Your task to perform on an android device: clear history in the chrome app Image 0: 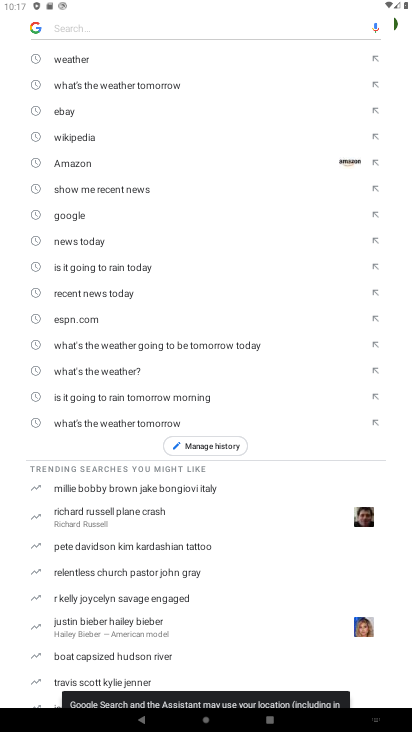
Step 0: press home button
Your task to perform on an android device: clear history in the chrome app Image 1: 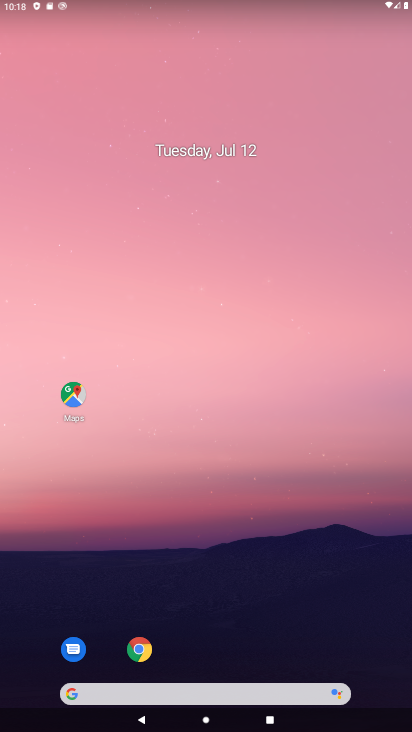
Step 1: click (138, 652)
Your task to perform on an android device: clear history in the chrome app Image 2: 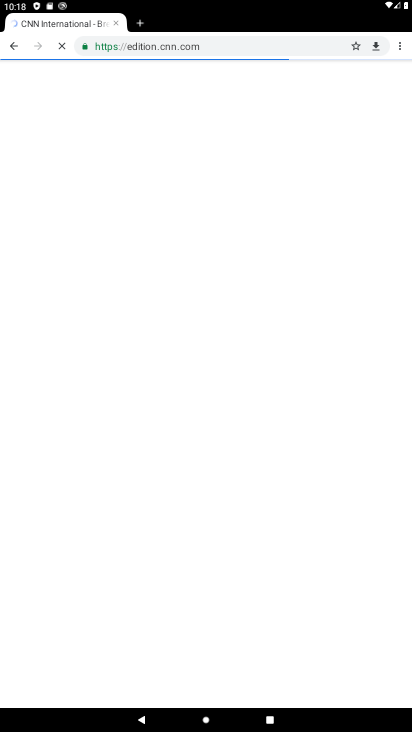
Step 2: click (398, 50)
Your task to perform on an android device: clear history in the chrome app Image 3: 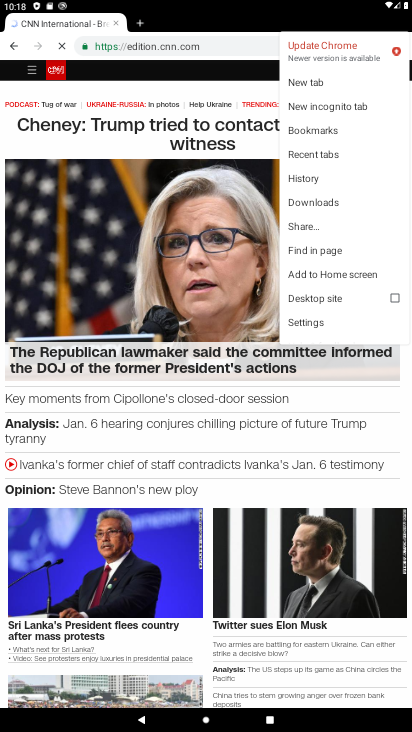
Step 3: click (304, 175)
Your task to perform on an android device: clear history in the chrome app Image 4: 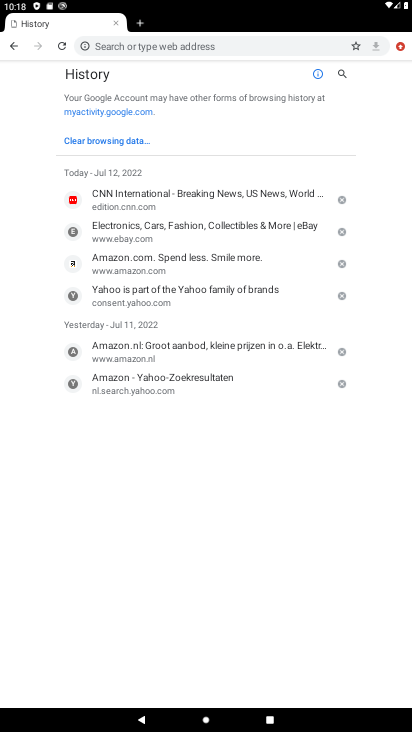
Step 4: click (99, 140)
Your task to perform on an android device: clear history in the chrome app Image 5: 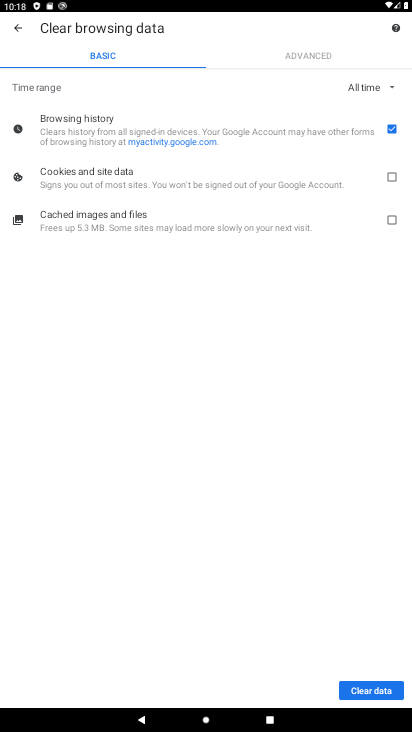
Step 5: click (362, 683)
Your task to perform on an android device: clear history in the chrome app Image 6: 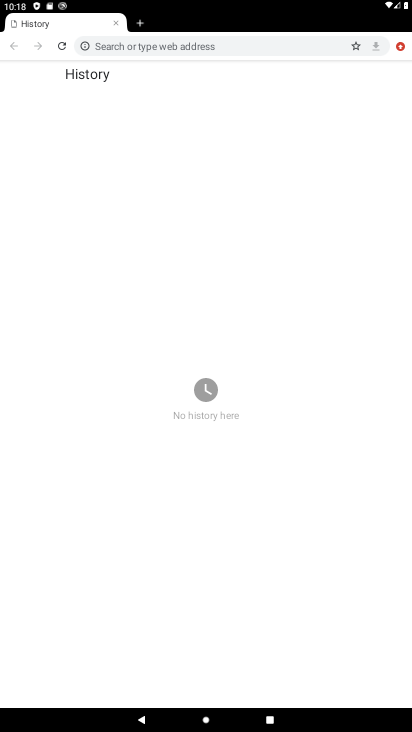
Step 6: task complete